Your task to perform on an android device: change the clock style Image 0: 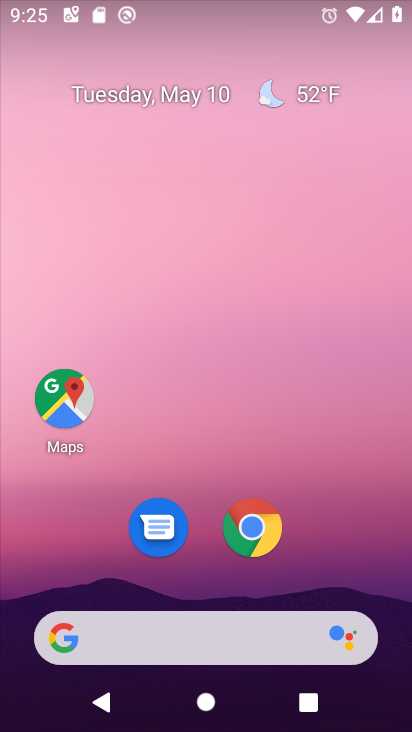
Step 0: drag from (333, 477) to (111, 87)
Your task to perform on an android device: change the clock style Image 1: 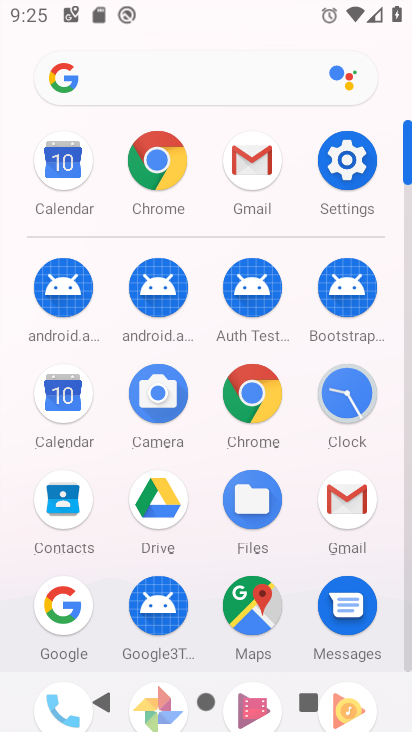
Step 1: click (352, 400)
Your task to perform on an android device: change the clock style Image 2: 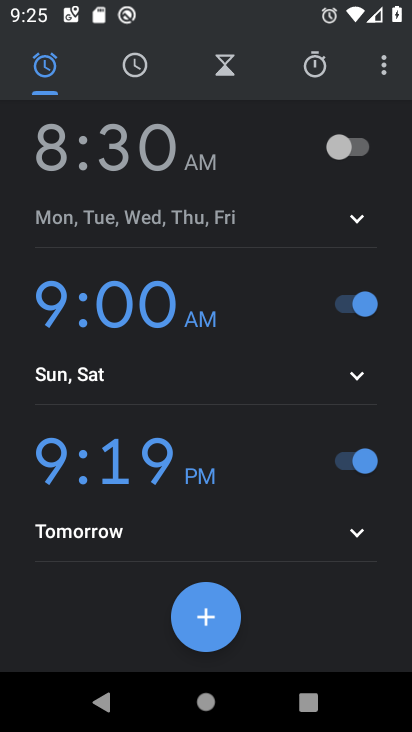
Step 2: click (384, 69)
Your task to perform on an android device: change the clock style Image 3: 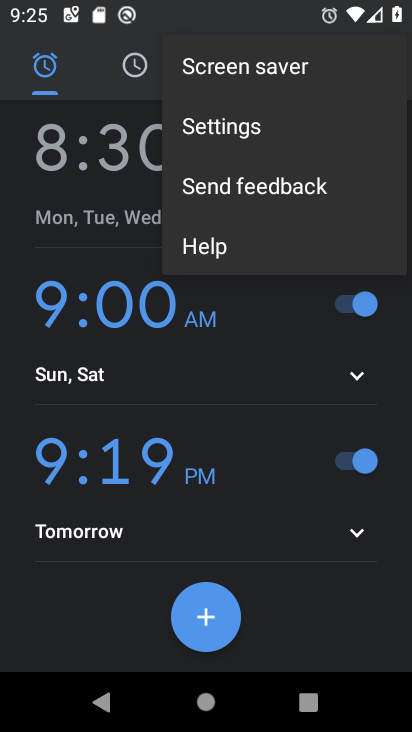
Step 3: click (243, 128)
Your task to perform on an android device: change the clock style Image 4: 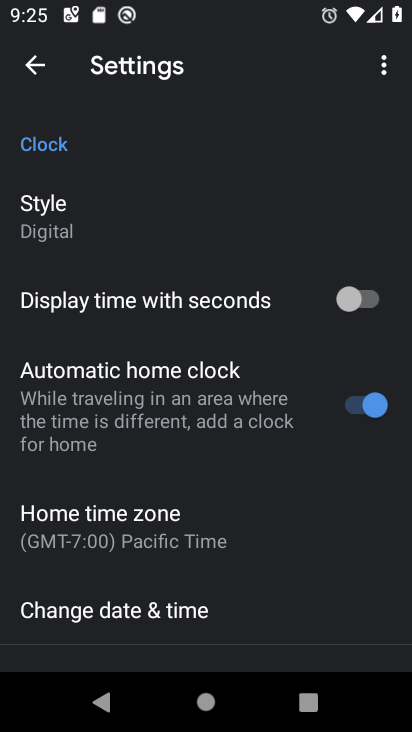
Step 4: click (50, 223)
Your task to perform on an android device: change the clock style Image 5: 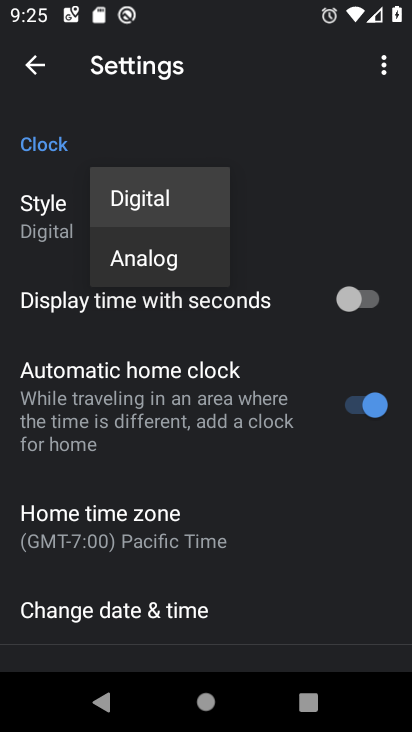
Step 5: click (147, 267)
Your task to perform on an android device: change the clock style Image 6: 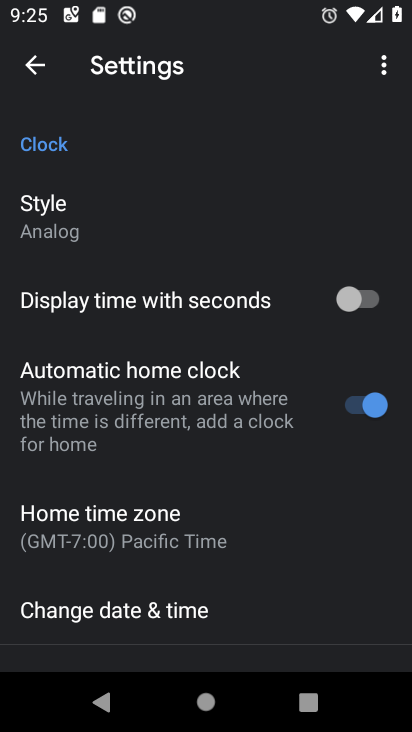
Step 6: task complete